Your task to perform on an android device: Search for sushi restaurants on Maps Image 0: 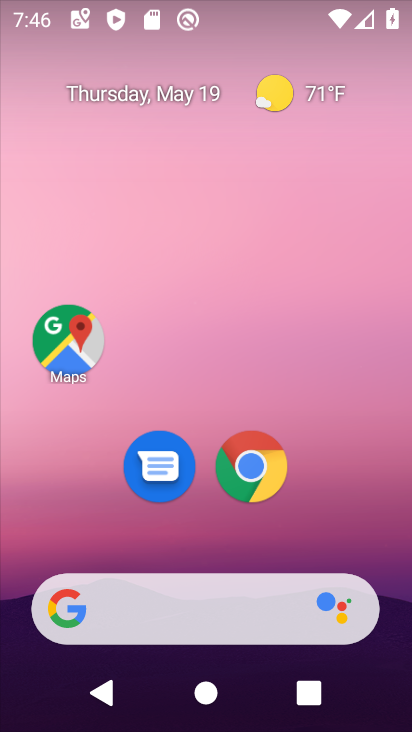
Step 0: drag from (341, 527) to (268, 2)
Your task to perform on an android device: Search for sushi restaurants on Maps Image 1: 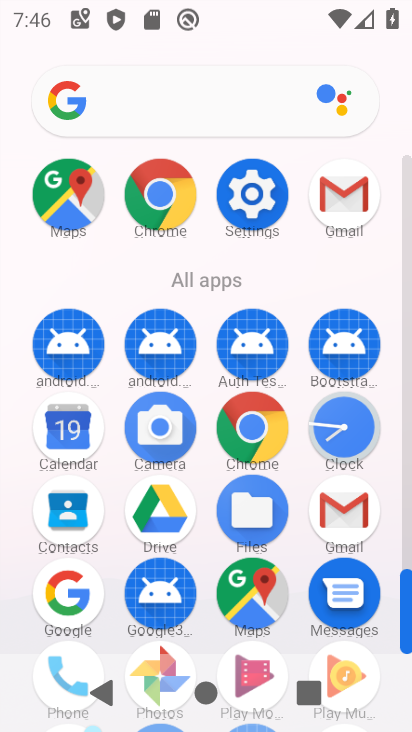
Step 1: drag from (1, 606) to (22, 307)
Your task to perform on an android device: Search for sushi restaurants on Maps Image 2: 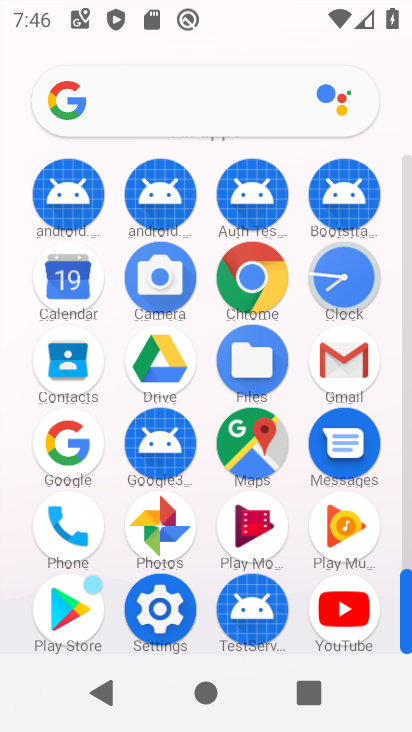
Step 2: click (254, 442)
Your task to perform on an android device: Search for sushi restaurants on Maps Image 3: 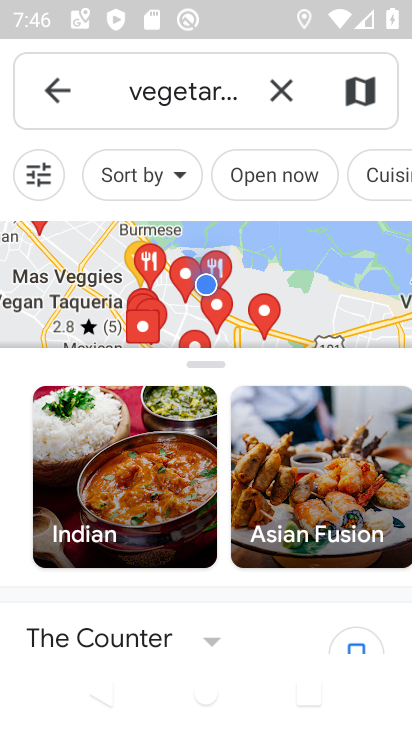
Step 3: click (270, 88)
Your task to perform on an android device: Search for sushi restaurants on Maps Image 4: 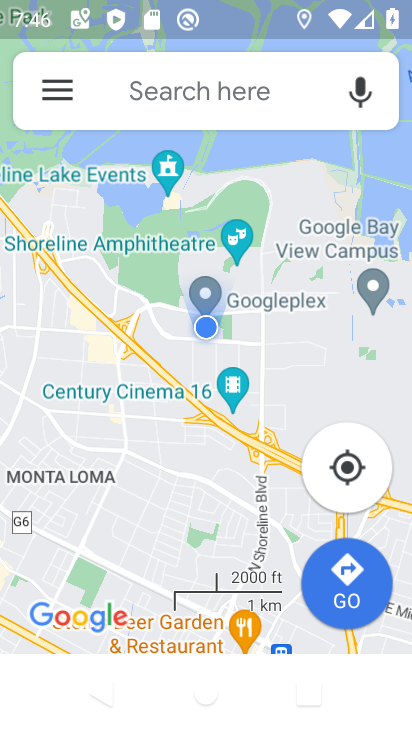
Step 4: click (105, 90)
Your task to perform on an android device: Search for sushi restaurants on Maps Image 5: 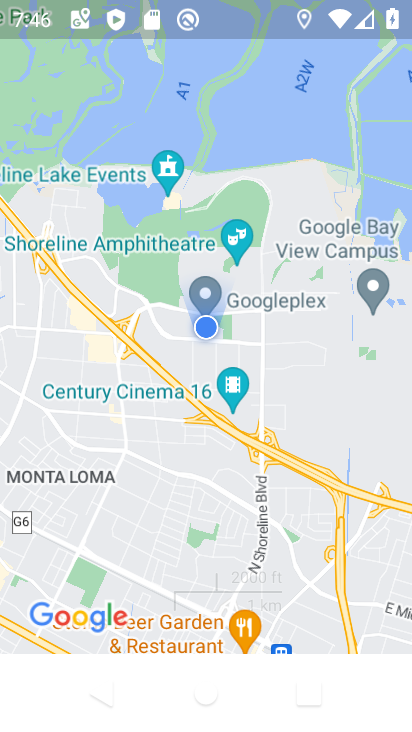
Step 5: drag from (263, 192) to (269, 352)
Your task to perform on an android device: Search for sushi restaurants on Maps Image 6: 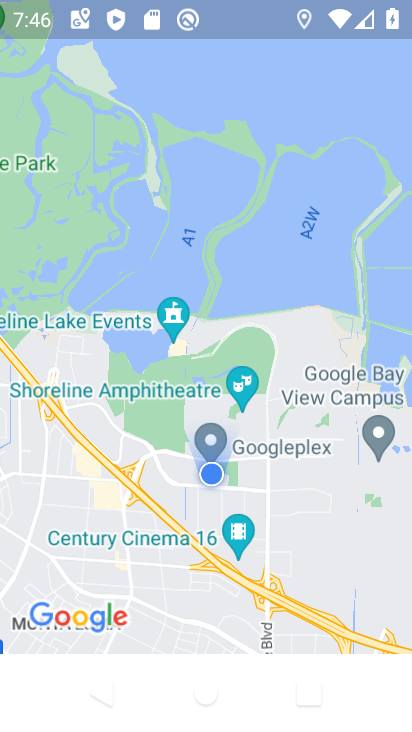
Step 6: drag from (254, 123) to (238, 543)
Your task to perform on an android device: Search for sushi restaurants on Maps Image 7: 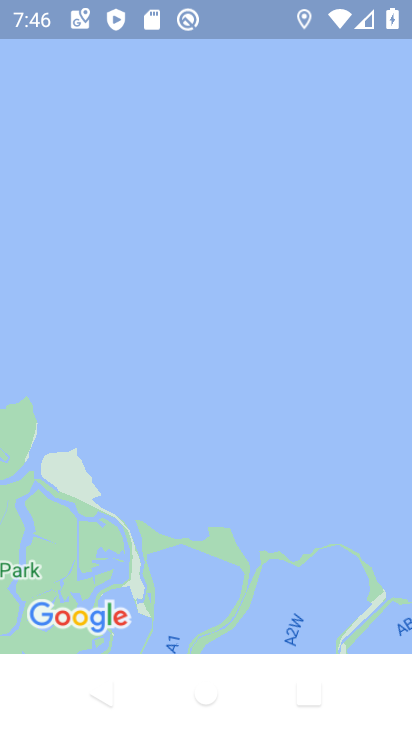
Step 7: click (197, 70)
Your task to perform on an android device: Search for sushi restaurants on Maps Image 8: 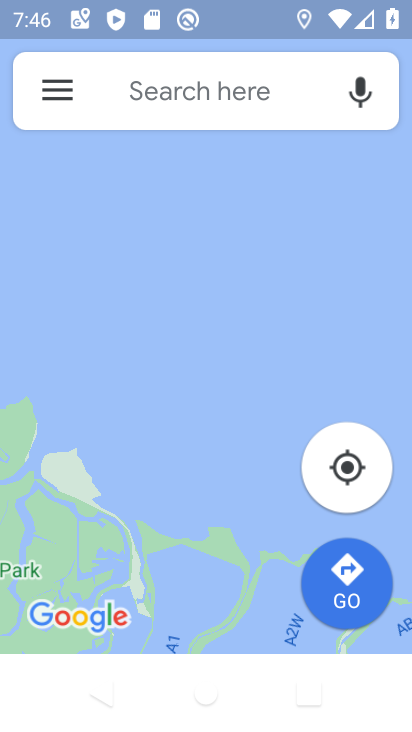
Step 8: click (115, 85)
Your task to perform on an android device: Search for sushi restaurants on Maps Image 9: 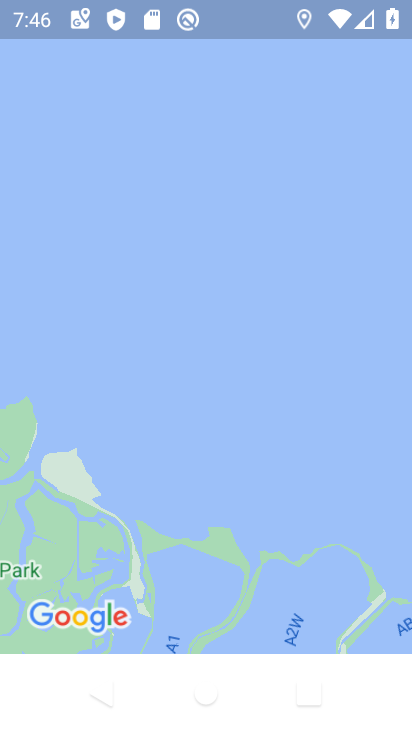
Step 9: click (287, 260)
Your task to perform on an android device: Search for sushi restaurants on Maps Image 10: 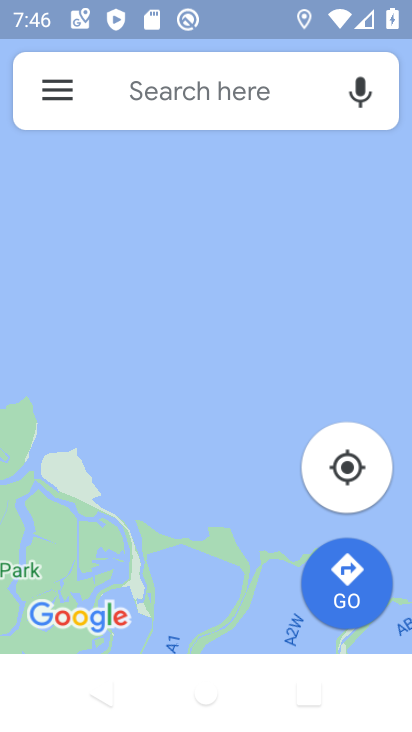
Step 10: click (293, 81)
Your task to perform on an android device: Search for sushi restaurants on Maps Image 11: 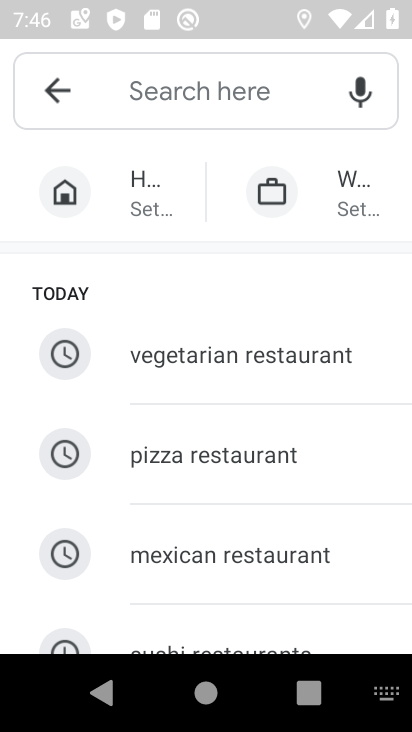
Step 11: drag from (274, 590) to (279, 310)
Your task to perform on an android device: Search for sushi restaurants on Maps Image 12: 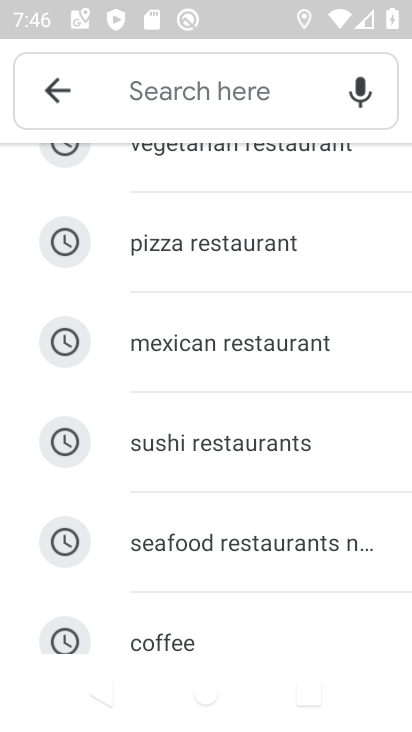
Step 12: click (247, 436)
Your task to perform on an android device: Search for sushi restaurants on Maps Image 13: 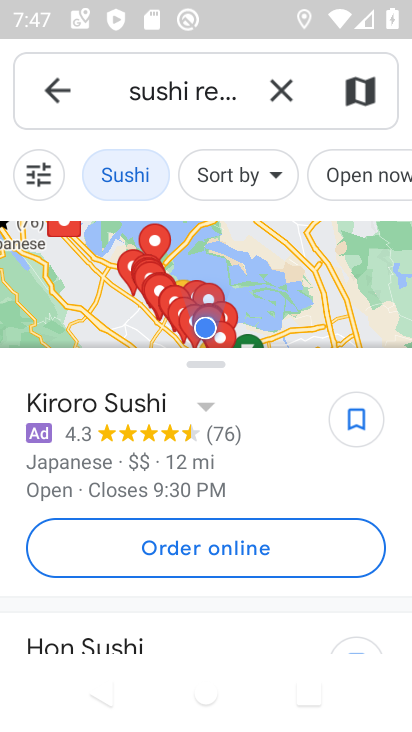
Step 13: task complete